Your task to perform on an android device: What's the weather like in Singapore? Image 0: 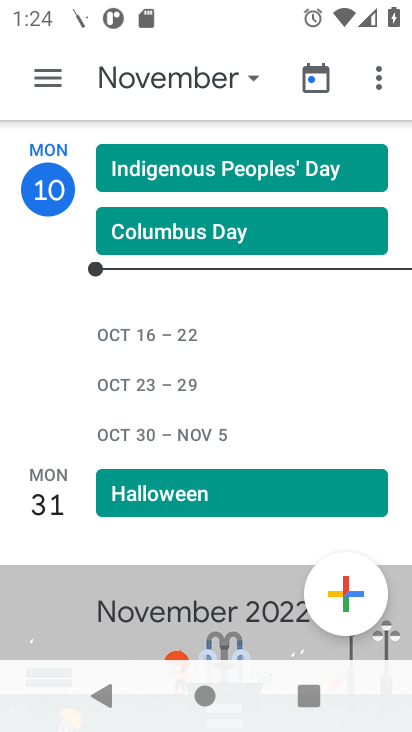
Step 0: press home button
Your task to perform on an android device: What's the weather like in Singapore? Image 1: 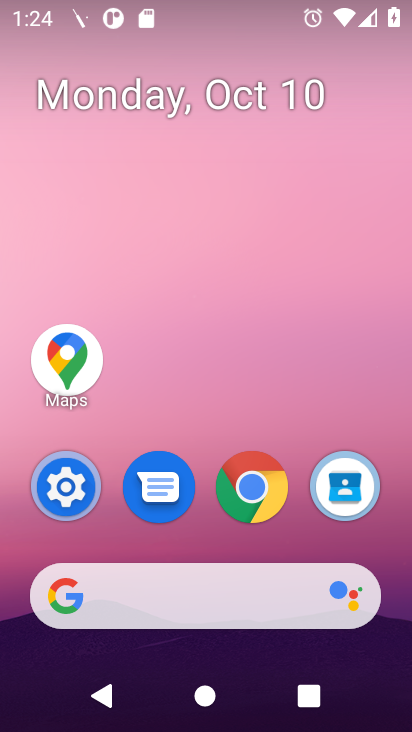
Step 1: click (263, 494)
Your task to perform on an android device: What's the weather like in Singapore? Image 2: 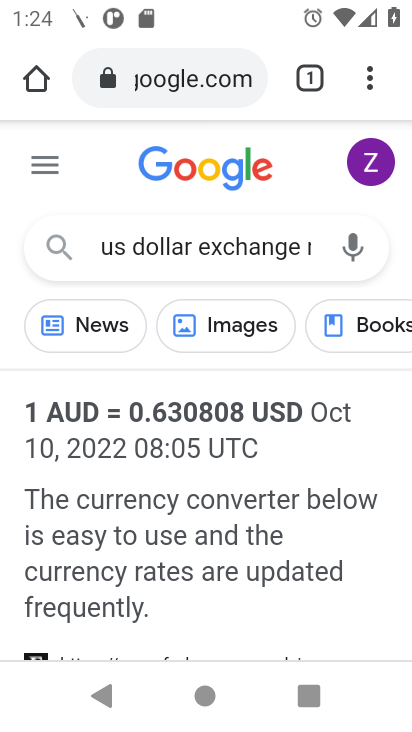
Step 2: click (190, 73)
Your task to perform on an android device: What's the weather like in Singapore? Image 3: 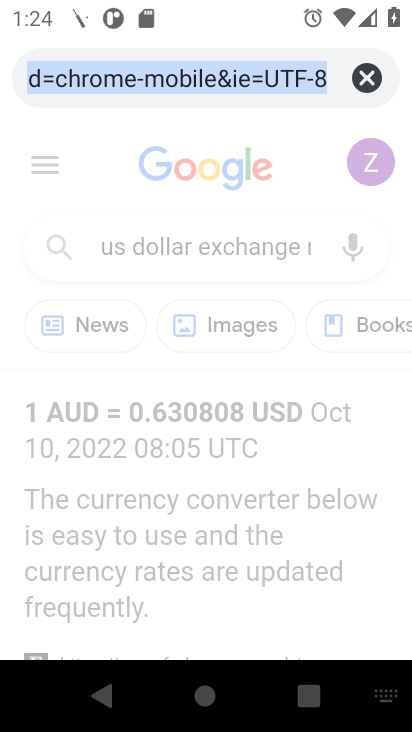
Step 3: type "weather in Singapore"
Your task to perform on an android device: What's the weather like in Singapore? Image 4: 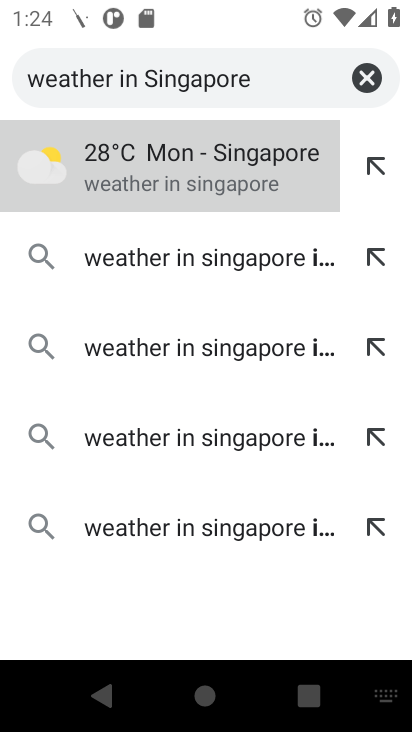
Step 4: type ""
Your task to perform on an android device: What's the weather like in Singapore? Image 5: 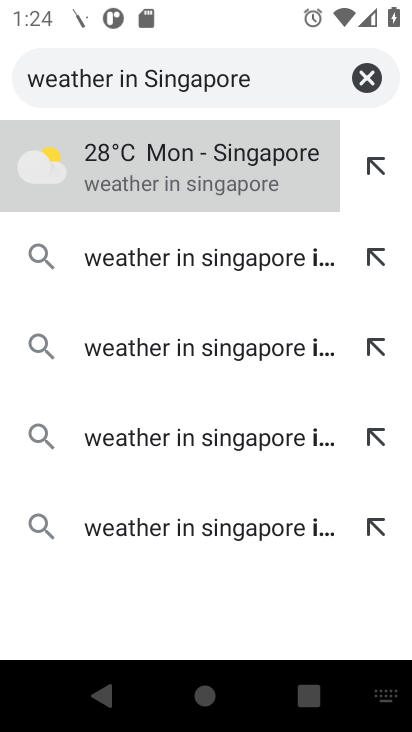
Step 5: press enter
Your task to perform on an android device: What's the weather like in Singapore? Image 6: 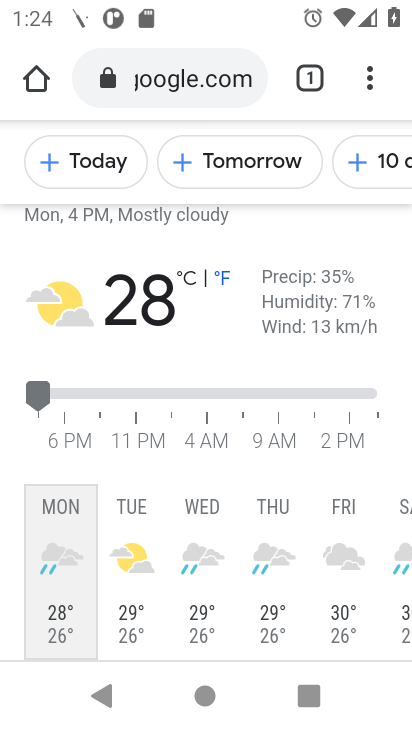
Step 6: task complete